Your task to perform on an android device: open the mobile data screen to see how much data has been used Image 0: 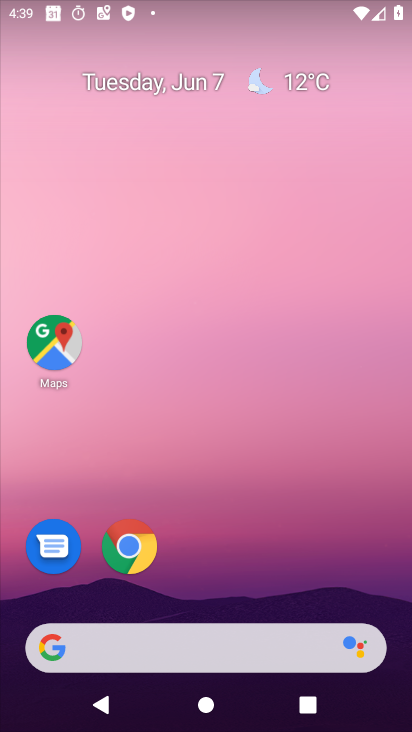
Step 0: drag from (179, 615) to (252, 14)
Your task to perform on an android device: open the mobile data screen to see how much data has been used Image 1: 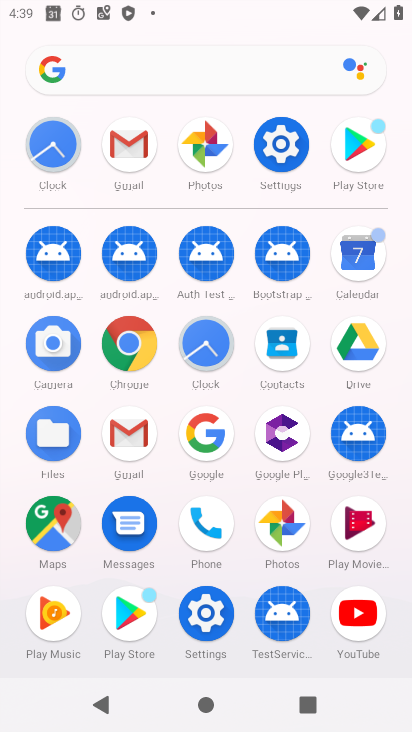
Step 1: drag from (257, 12) to (227, 656)
Your task to perform on an android device: open the mobile data screen to see how much data has been used Image 2: 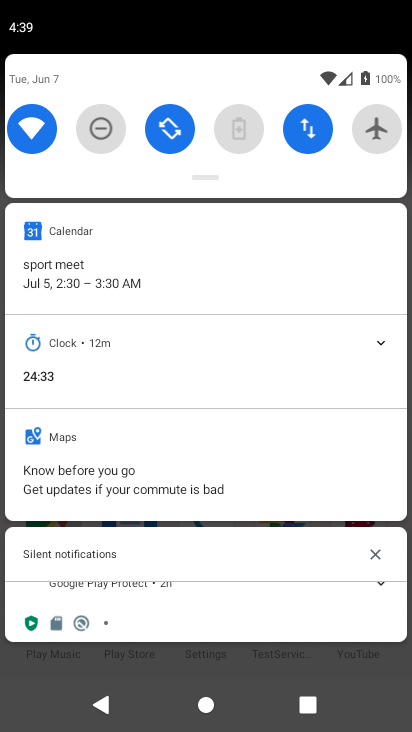
Step 2: click (317, 132)
Your task to perform on an android device: open the mobile data screen to see how much data has been used Image 3: 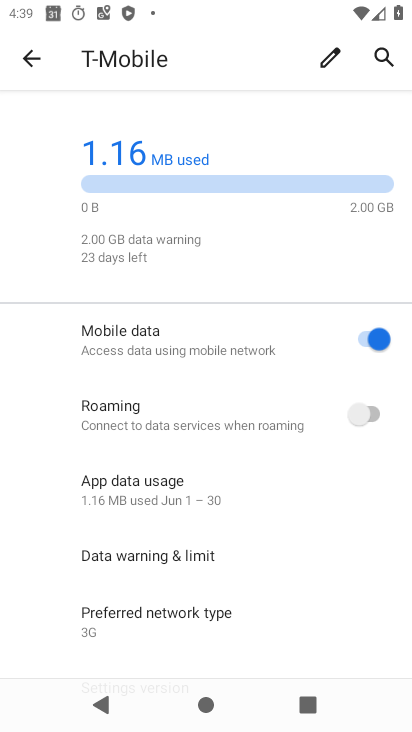
Step 3: task complete